Your task to perform on an android device: Go to settings Image 0: 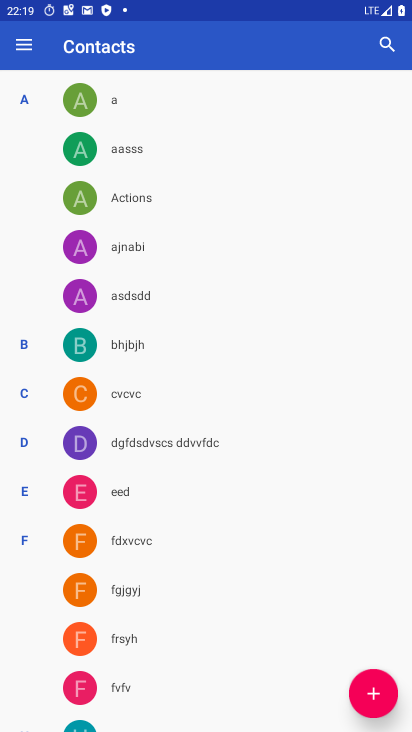
Step 0: press home button
Your task to perform on an android device: Go to settings Image 1: 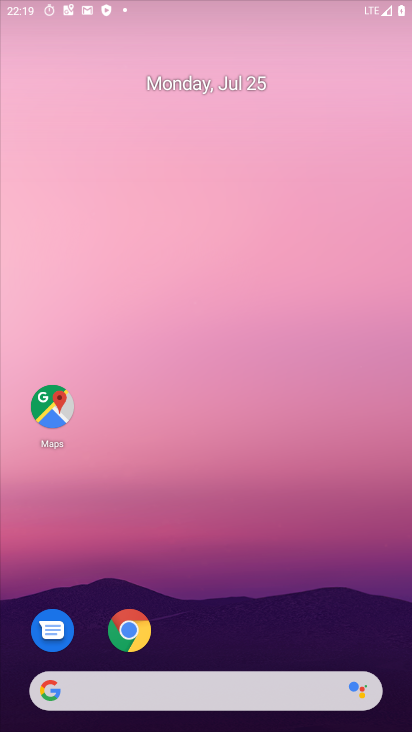
Step 1: drag from (319, 604) to (264, 131)
Your task to perform on an android device: Go to settings Image 2: 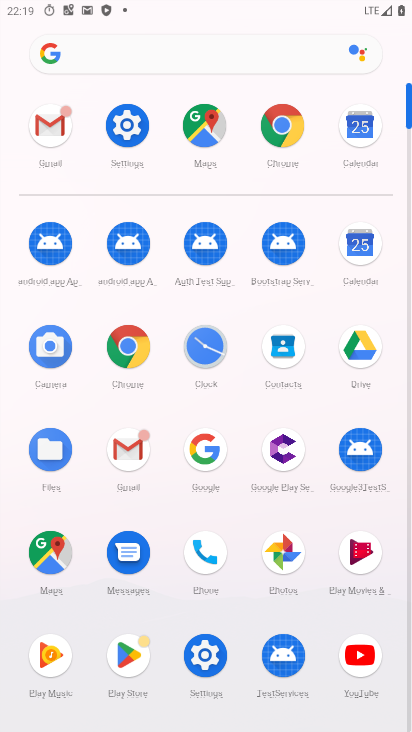
Step 2: click (135, 119)
Your task to perform on an android device: Go to settings Image 3: 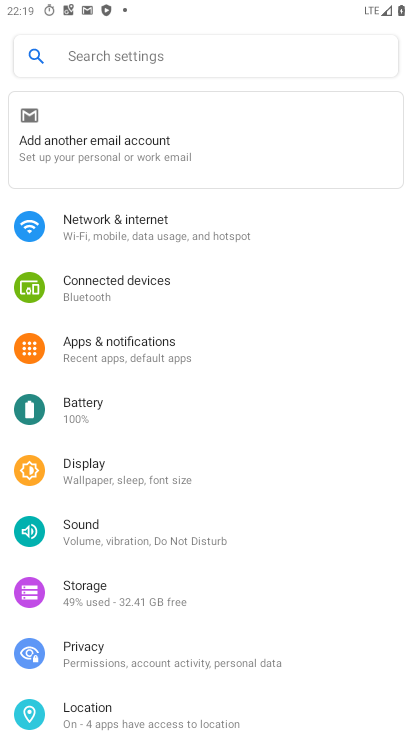
Step 3: task complete